Your task to perform on an android device: open chrome privacy settings Image 0: 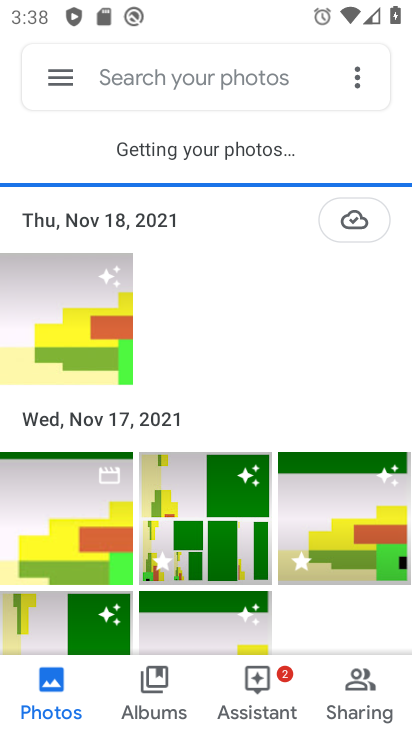
Step 0: press home button
Your task to perform on an android device: open chrome privacy settings Image 1: 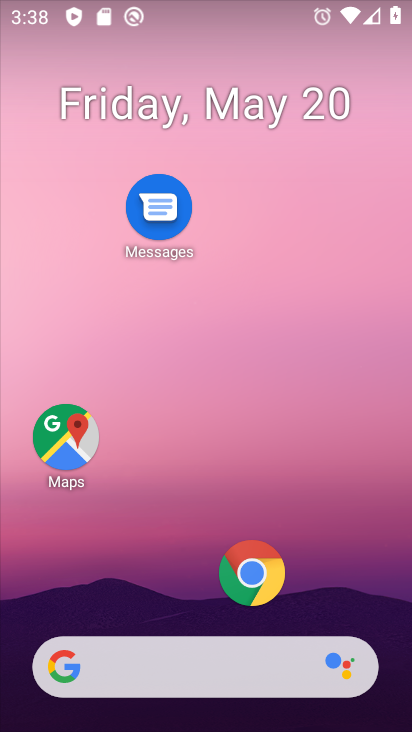
Step 1: click (245, 550)
Your task to perform on an android device: open chrome privacy settings Image 2: 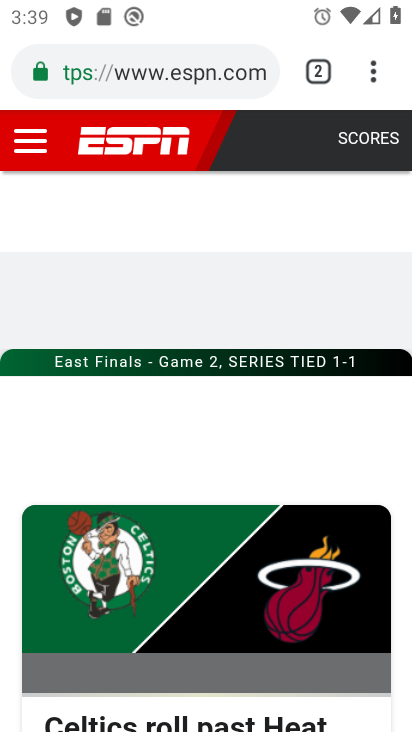
Step 2: drag from (370, 59) to (85, 573)
Your task to perform on an android device: open chrome privacy settings Image 3: 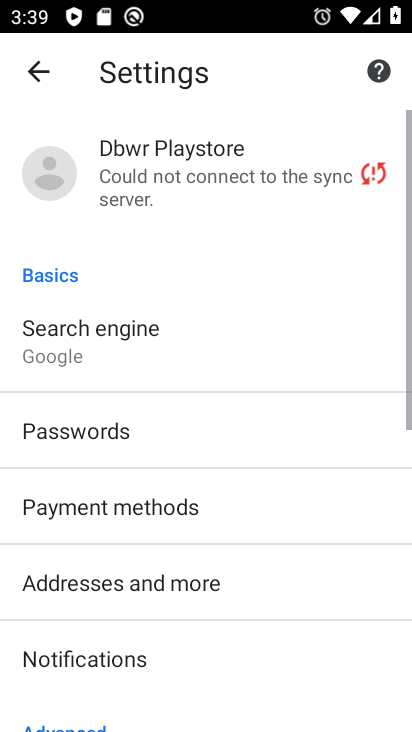
Step 3: drag from (121, 581) to (82, 150)
Your task to perform on an android device: open chrome privacy settings Image 4: 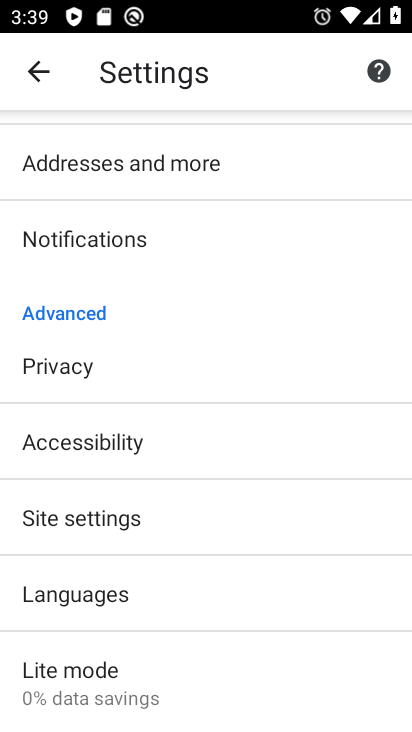
Step 4: drag from (105, 594) to (91, 446)
Your task to perform on an android device: open chrome privacy settings Image 5: 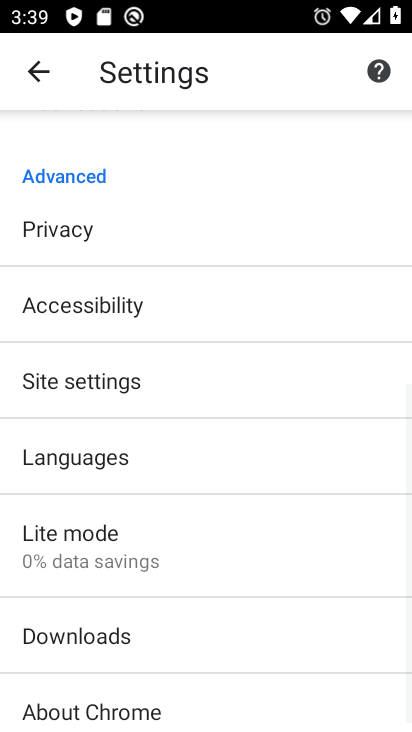
Step 5: click (77, 226)
Your task to perform on an android device: open chrome privacy settings Image 6: 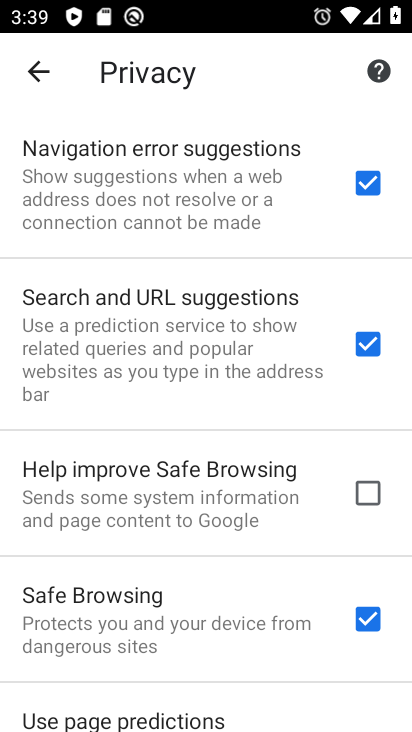
Step 6: task complete